Your task to perform on an android device: Go to settings Image 0: 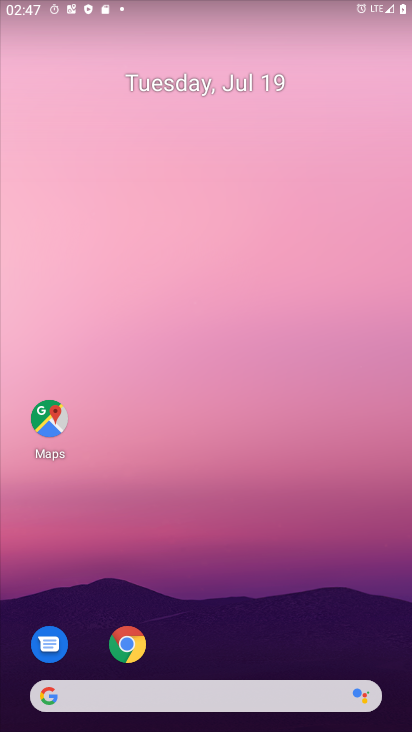
Step 0: drag from (204, 710) to (200, 254)
Your task to perform on an android device: Go to settings Image 1: 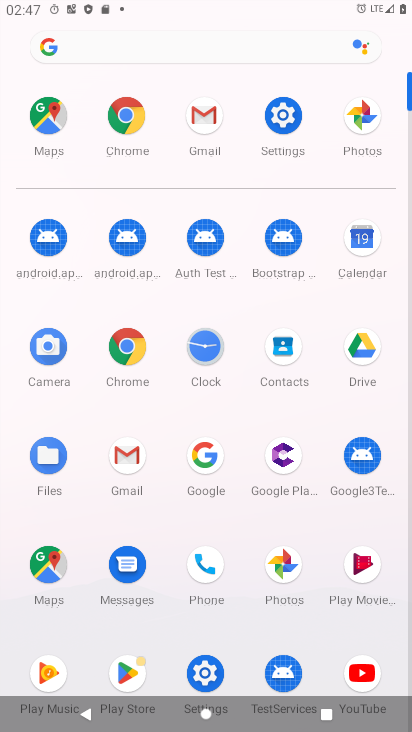
Step 1: click (286, 117)
Your task to perform on an android device: Go to settings Image 2: 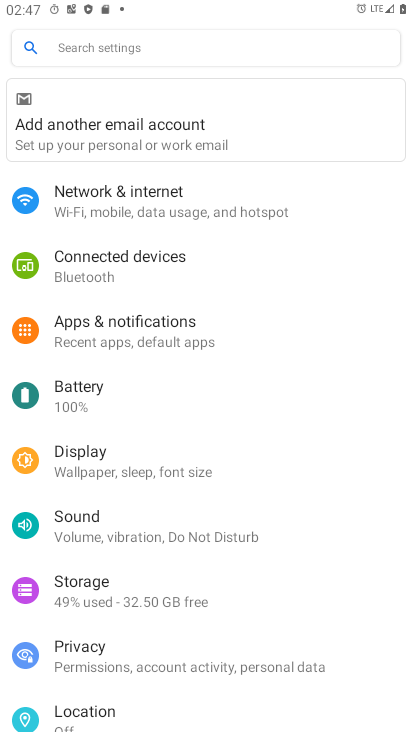
Step 2: task complete